Your task to perform on an android device: Open notification settings Image 0: 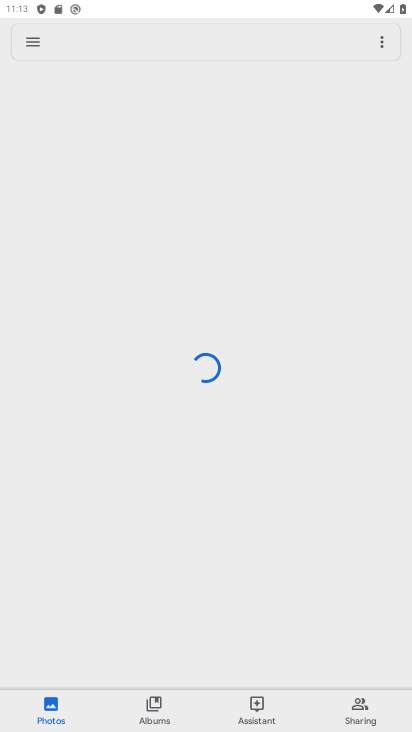
Step 0: press home button
Your task to perform on an android device: Open notification settings Image 1: 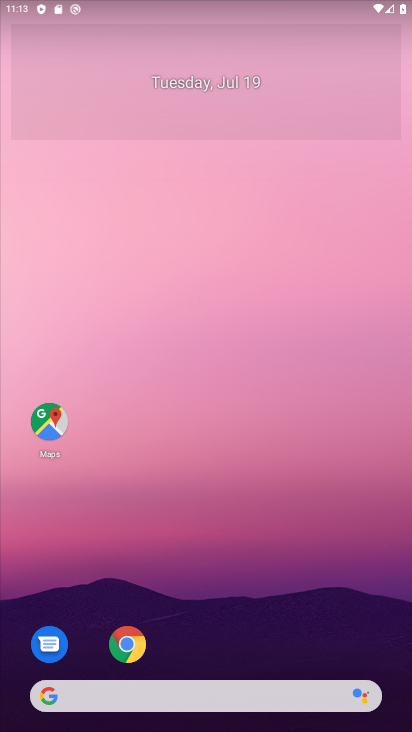
Step 1: drag from (27, 694) to (46, 219)
Your task to perform on an android device: Open notification settings Image 2: 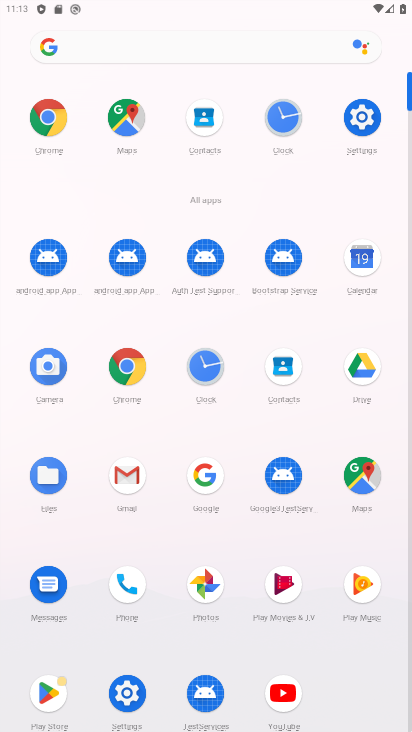
Step 2: click (127, 692)
Your task to perform on an android device: Open notification settings Image 3: 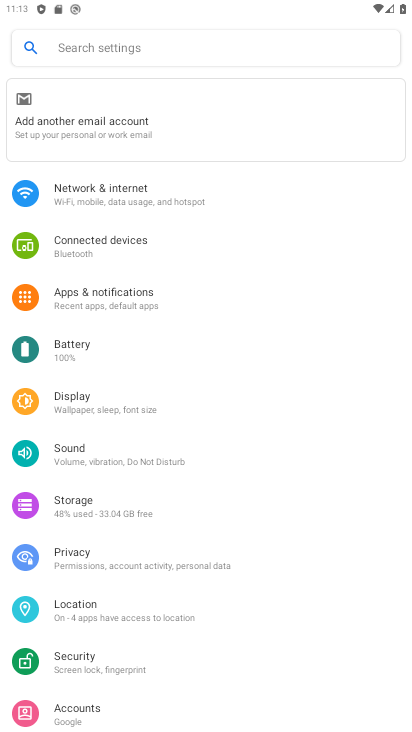
Step 3: click (118, 301)
Your task to perform on an android device: Open notification settings Image 4: 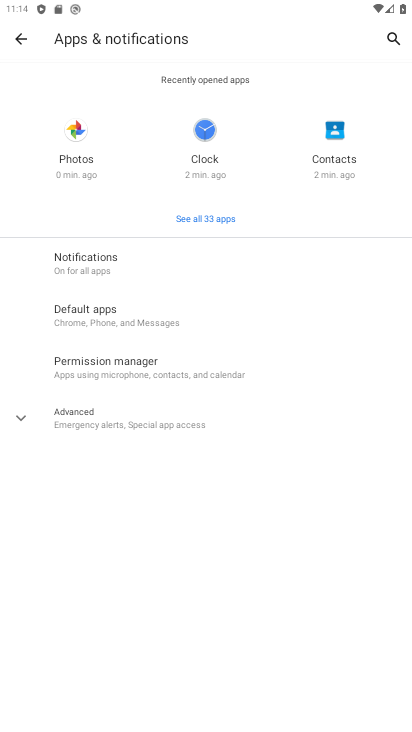
Step 4: task complete